Your task to perform on an android device: Search for sushi restaurants on Maps Image 0: 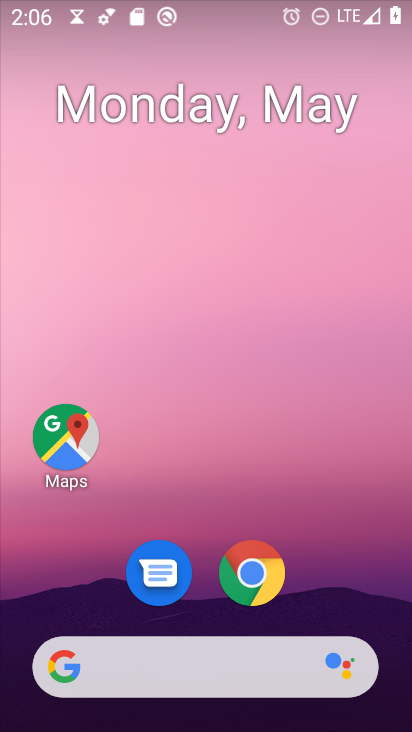
Step 0: drag from (212, 684) to (288, 8)
Your task to perform on an android device: Search for sushi restaurants on Maps Image 1: 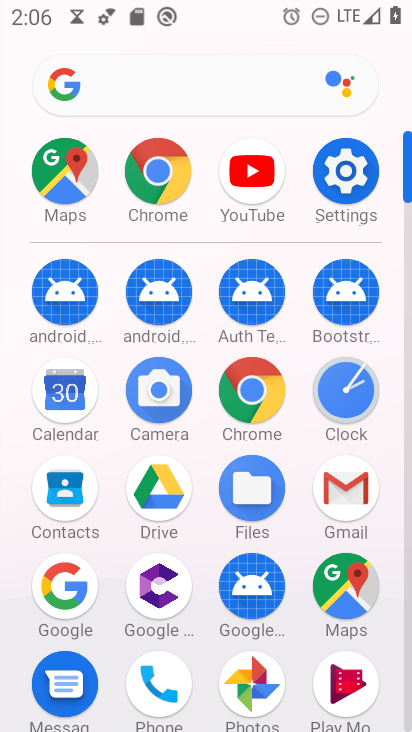
Step 1: click (336, 604)
Your task to perform on an android device: Search for sushi restaurants on Maps Image 2: 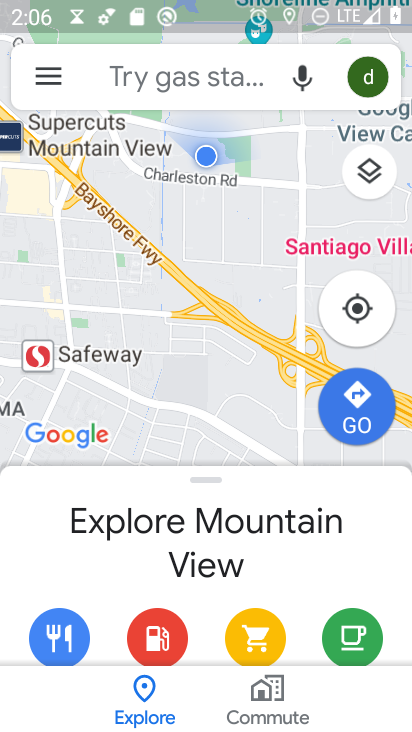
Step 2: click (188, 61)
Your task to perform on an android device: Search for sushi restaurants on Maps Image 3: 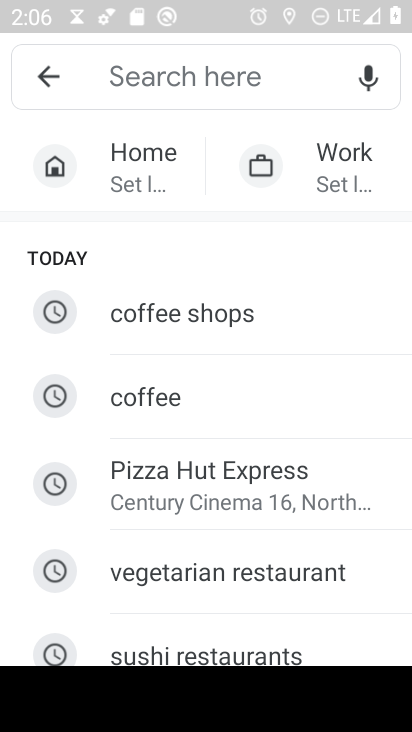
Step 3: drag from (222, 591) to (238, 321)
Your task to perform on an android device: Search for sushi restaurants on Maps Image 4: 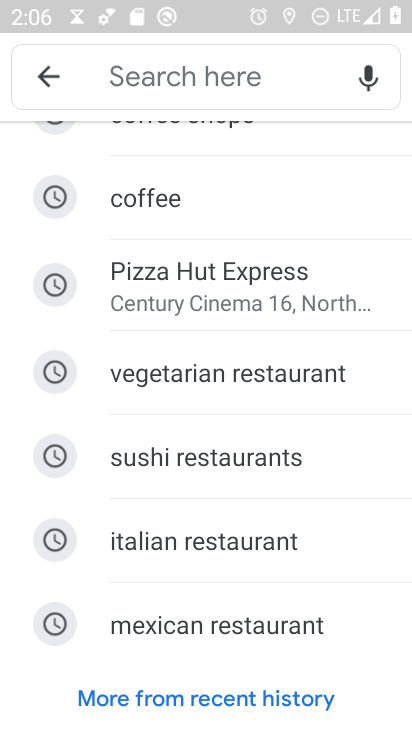
Step 4: click (189, 429)
Your task to perform on an android device: Search for sushi restaurants on Maps Image 5: 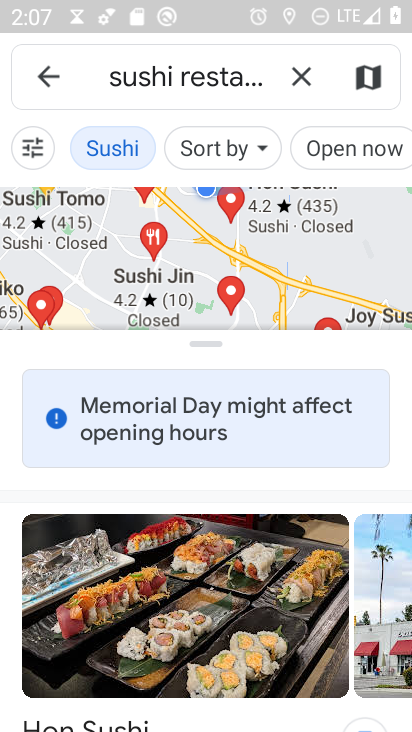
Step 5: task complete